Your task to perform on an android device: Open Reddit.com Image 0: 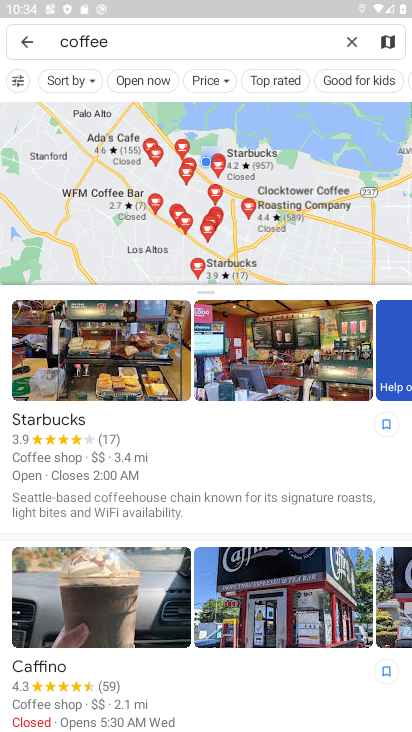
Step 0: press home button
Your task to perform on an android device: Open Reddit.com Image 1: 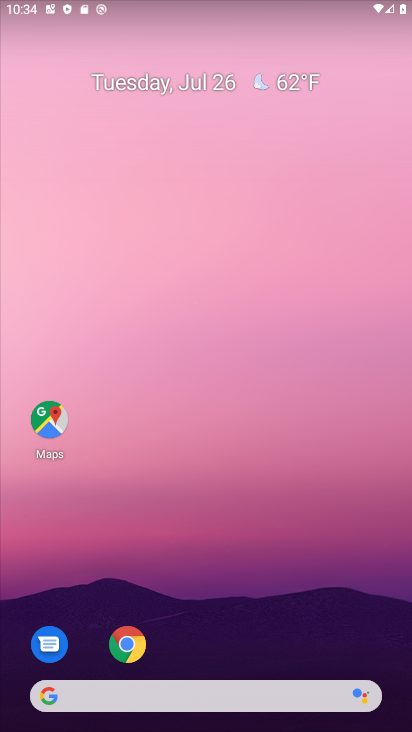
Step 1: click (124, 653)
Your task to perform on an android device: Open Reddit.com Image 2: 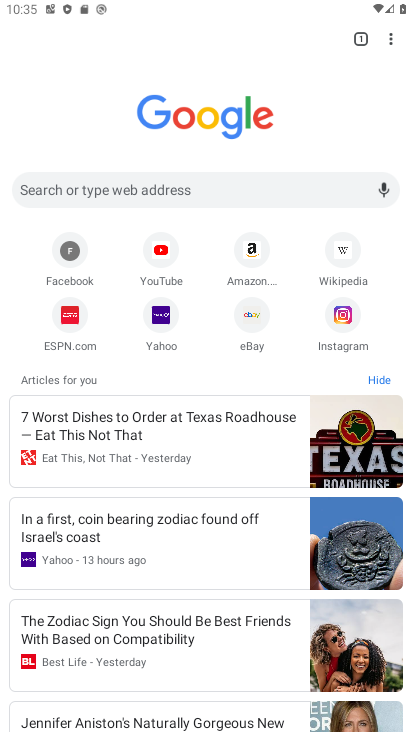
Step 2: click (200, 187)
Your task to perform on an android device: Open Reddit.com Image 3: 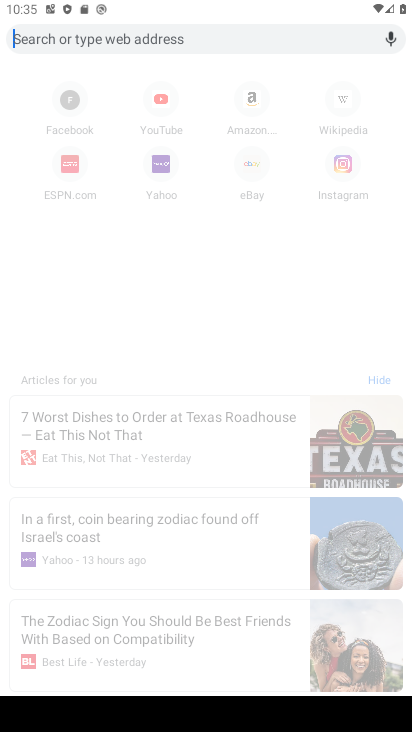
Step 3: type "reddit.com"
Your task to perform on an android device: Open Reddit.com Image 4: 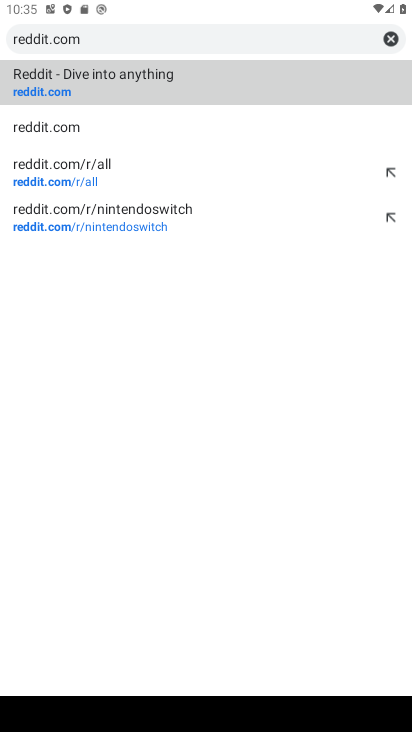
Step 4: click (90, 92)
Your task to perform on an android device: Open Reddit.com Image 5: 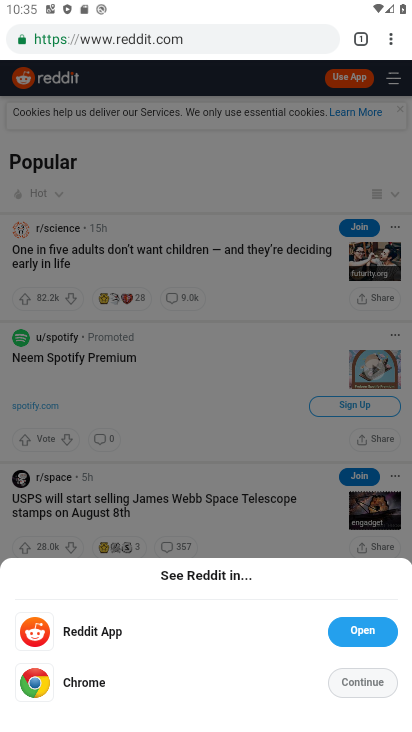
Step 5: click (347, 688)
Your task to perform on an android device: Open Reddit.com Image 6: 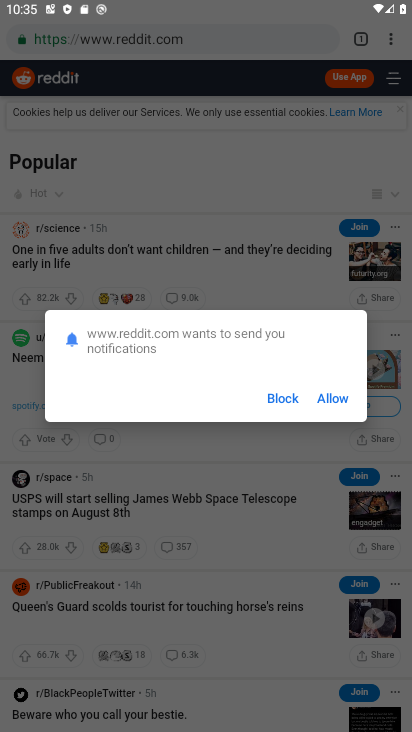
Step 6: click (340, 387)
Your task to perform on an android device: Open Reddit.com Image 7: 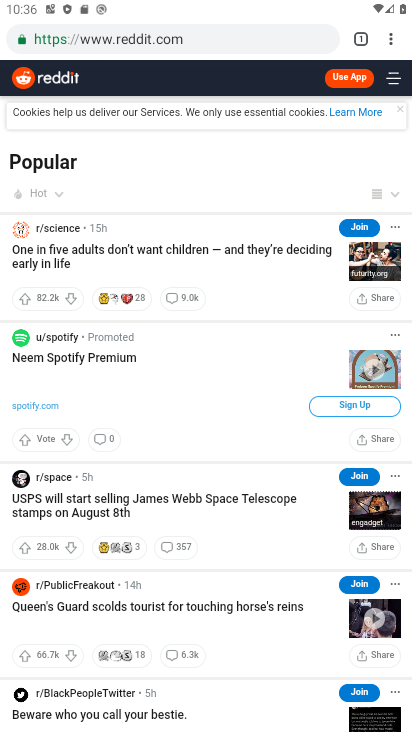
Step 7: task complete